Your task to perform on an android device: Open Chrome and go to settings Image 0: 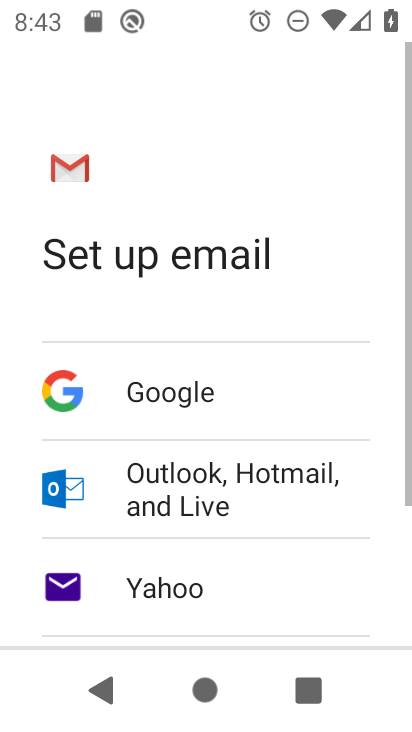
Step 0: press home button
Your task to perform on an android device: Open Chrome and go to settings Image 1: 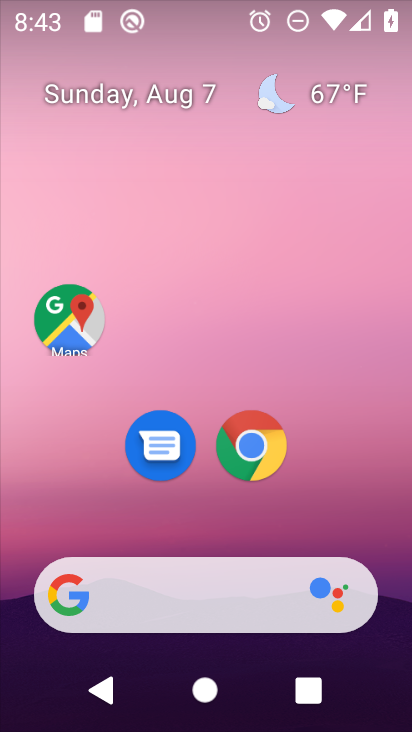
Step 1: click (246, 442)
Your task to perform on an android device: Open Chrome and go to settings Image 2: 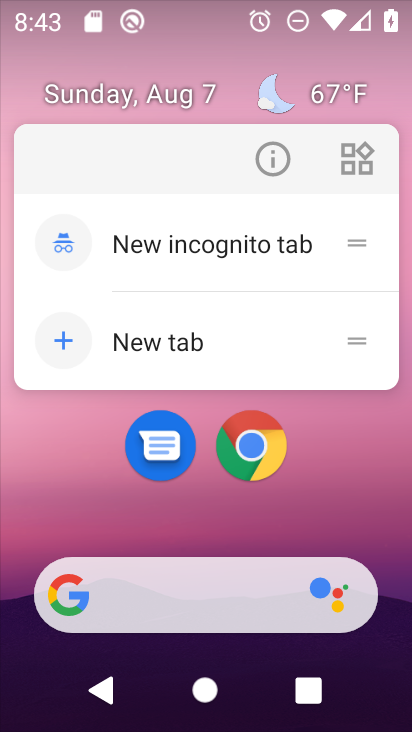
Step 2: click (317, 497)
Your task to perform on an android device: Open Chrome and go to settings Image 3: 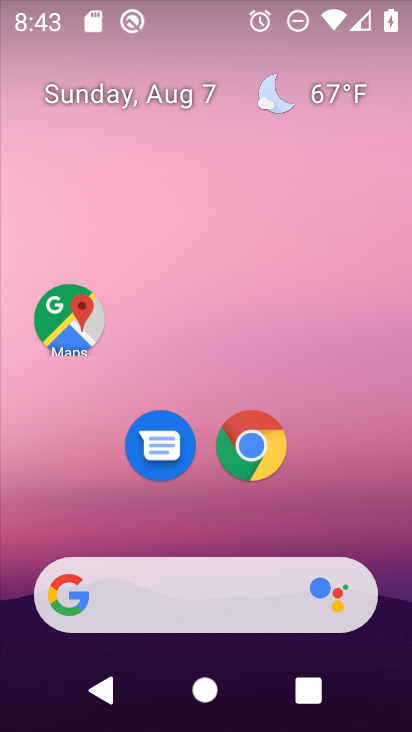
Step 3: drag from (315, 522) to (341, 79)
Your task to perform on an android device: Open Chrome and go to settings Image 4: 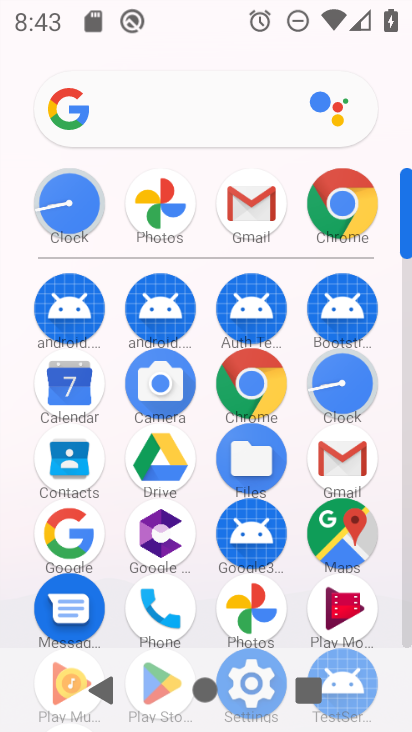
Step 4: click (342, 192)
Your task to perform on an android device: Open Chrome and go to settings Image 5: 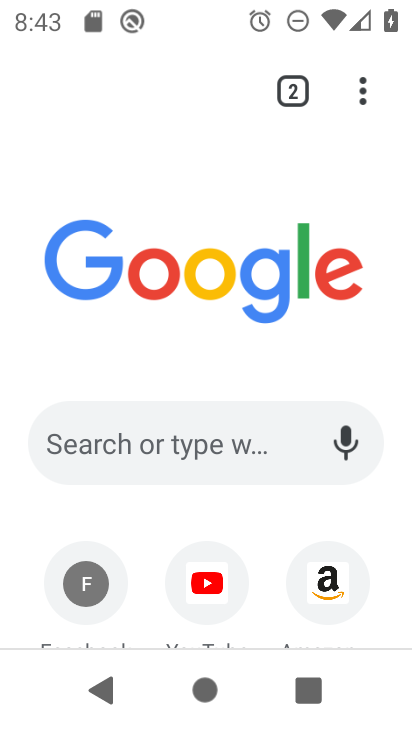
Step 5: click (364, 89)
Your task to perform on an android device: Open Chrome and go to settings Image 6: 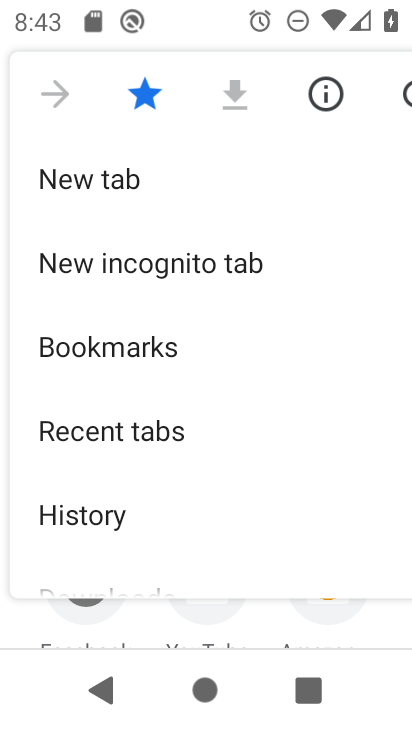
Step 6: drag from (137, 541) to (181, 0)
Your task to perform on an android device: Open Chrome and go to settings Image 7: 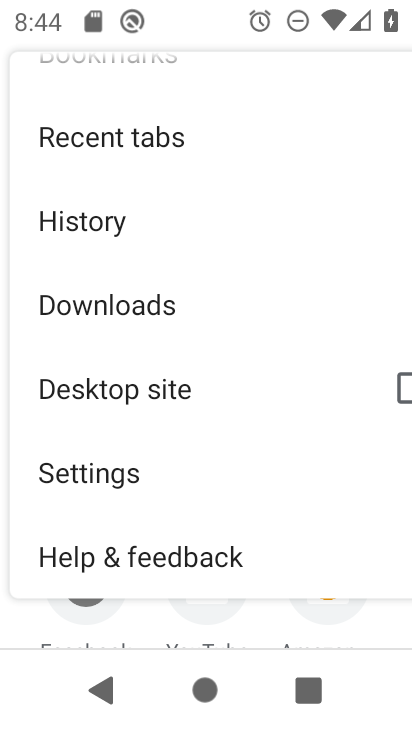
Step 7: click (147, 470)
Your task to perform on an android device: Open Chrome and go to settings Image 8: 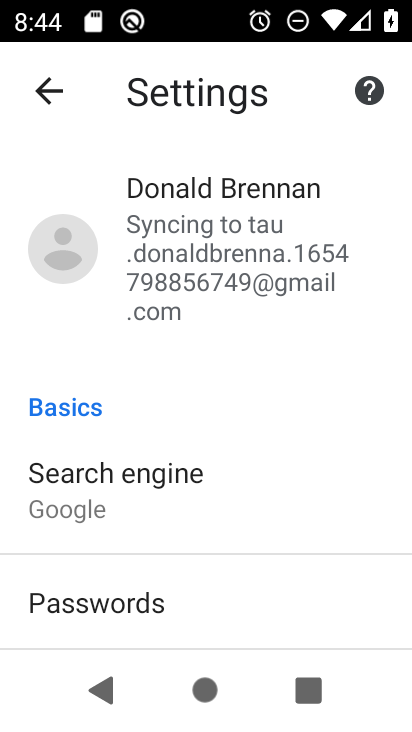
Step 8: task complete